Your task to perform on an android device: Go to accessibility settings Image 0: 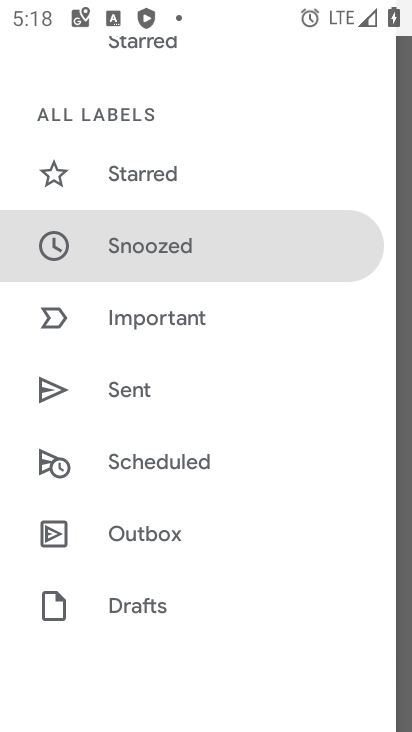
Step 0: press home button
Your task to perform on an android device: Go to accessibility settings Image 1: 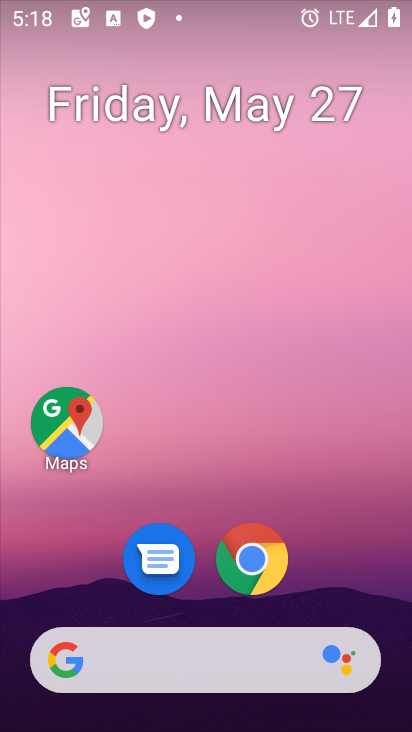
Step 1: drag from (208, 662) to (311, 0)
Your task to perform on an android device: Go to accessibility settings Image 2: 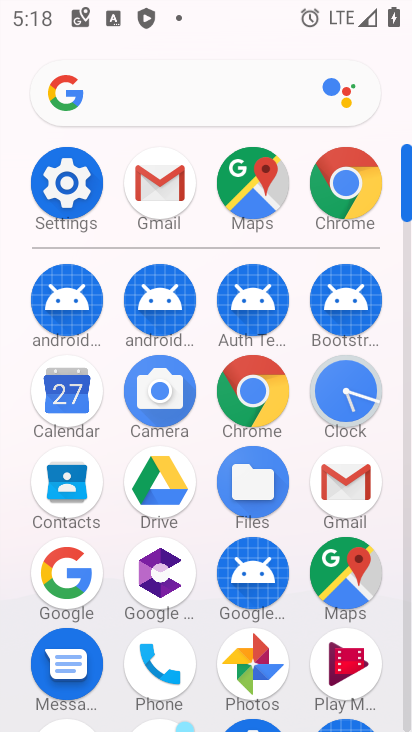
Step 2: drag from (298, 624) to (327, 73)
Your task to perform on an android device: Go to accessibility settings Image 3: 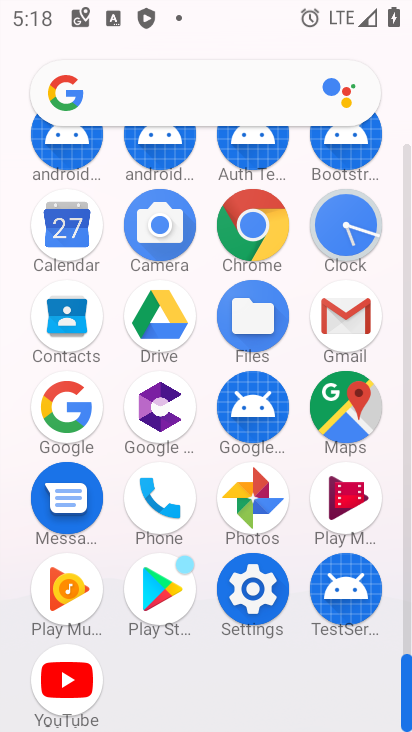
Step 3: click (262, 563)
Your task to perform on an android device: Go to accessibility settings Image 4: 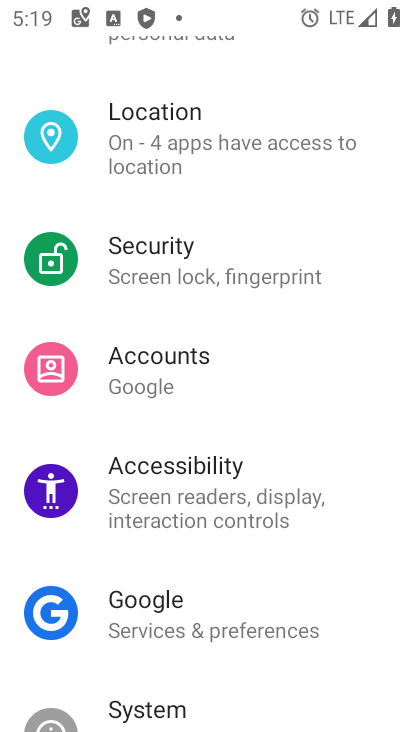
Step 4: click (277, 523)
Your task to perform on an android device: Go to accessibility settings Image 5: 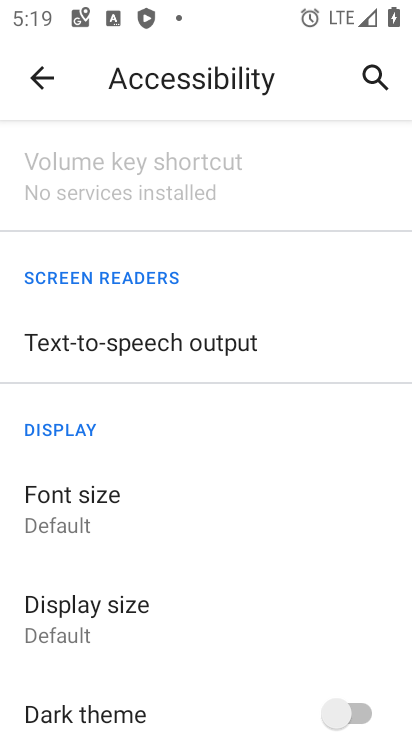
Step 5: task complete